Your task to perform on an android device: Search for sushi restaurants on Maps Image 0: 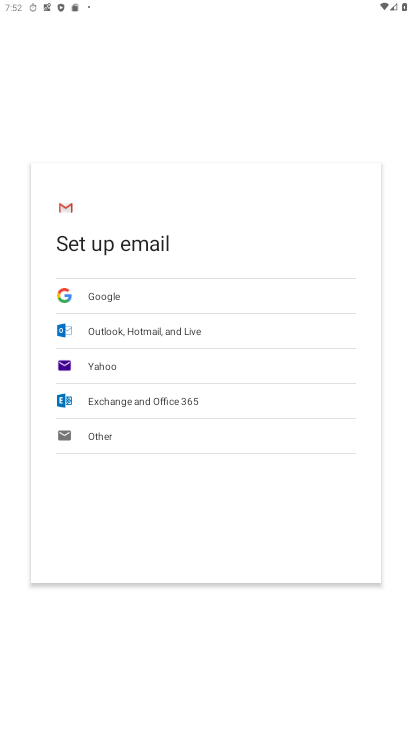
Step 0: press home button
Your task to perform on an android device: Search for sushi restaurants on Maps Image 1: 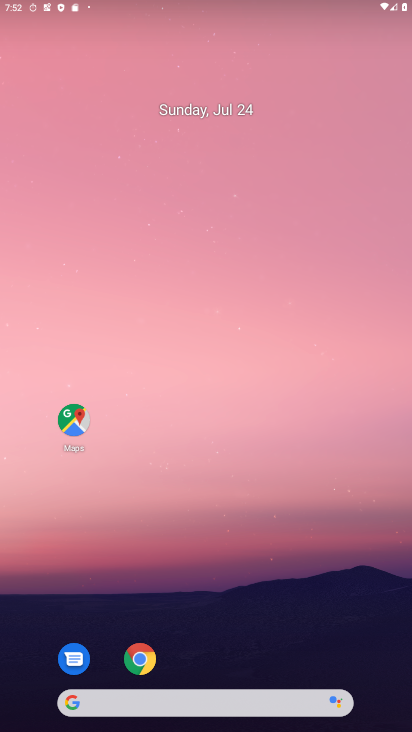
Step 1: drag from (353, 609) to (166, 3)
Your task to perform on an android device: Search for sushi restaurants on Maps Image 2: 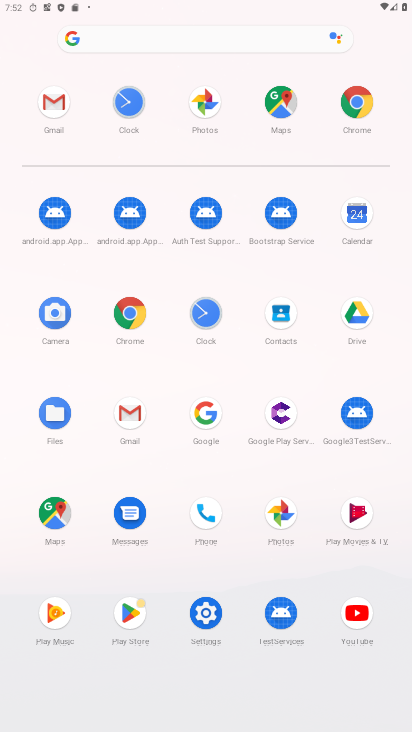
Step 2: click (287, 100)
Your task to perform on an android device: Search for sushi restaurants on Maps Image 3: 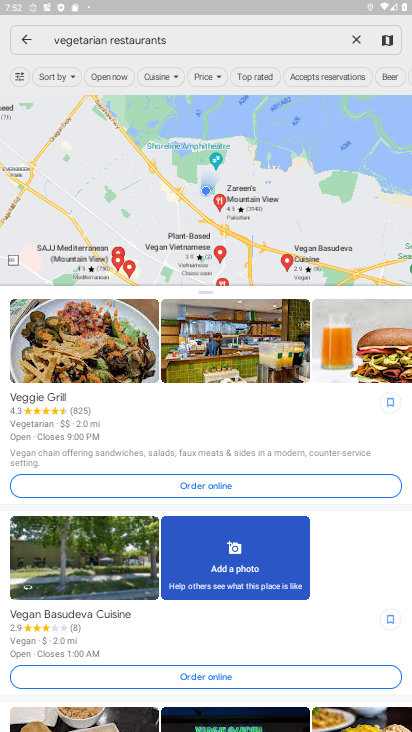
Step 3: click (356, 42)
Your task to perform on an android device: Search for sushi restaurants on Maps Image 4: 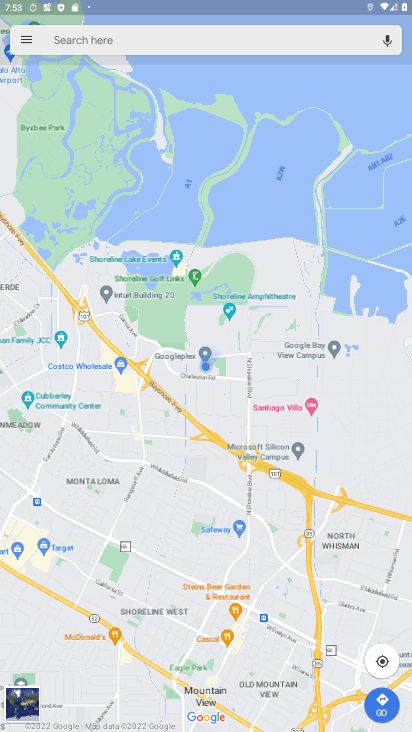
Step 4: type "sushi restaurants"
Your task to perform on an android device: Search for sushi restaurants on Maps Image 5: 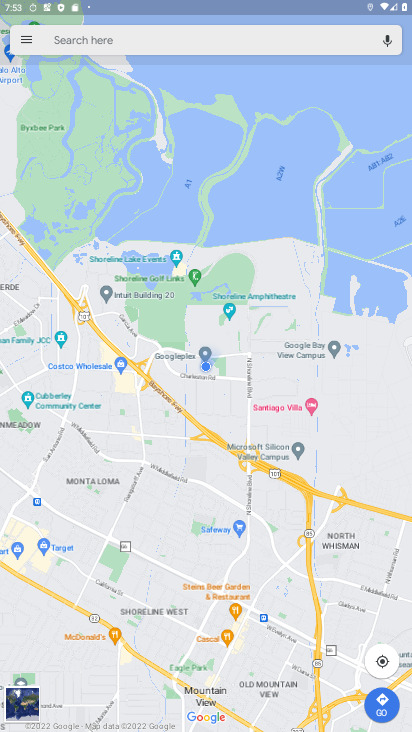
Step 5: click (322, 38)
Your task to perform on an android device: Search for sushi restaurants on Maps Image 6: 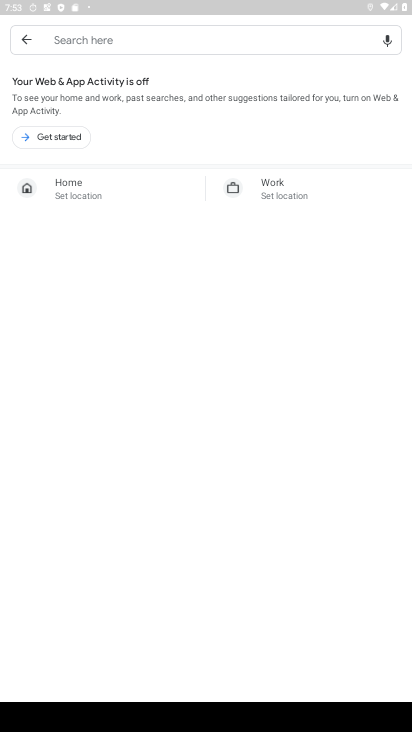
Step 6: type "sushi restaurants"
Your task to perform on an android device: Search for sushi restaurants on Maps Image 7: 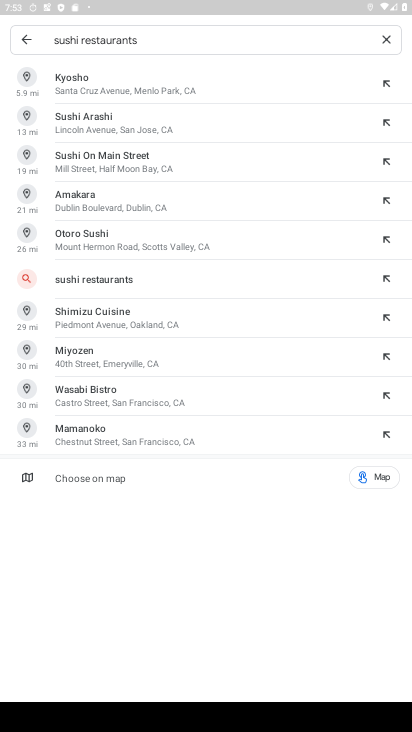
Step 7: press enter
Your task to perform on an android device: Search for sushi restaurants on Maps Image 8: 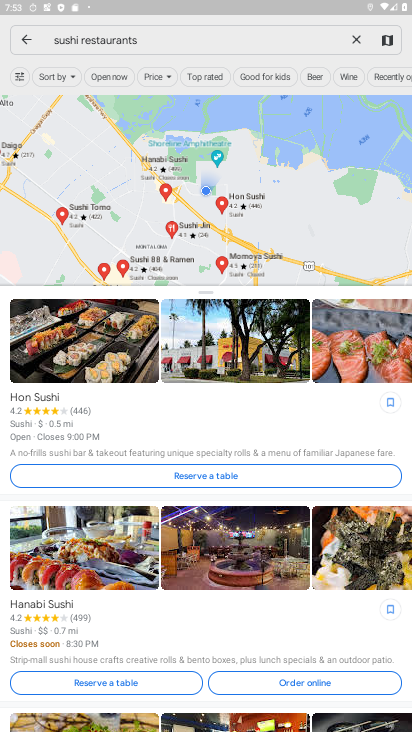
Step 8: task complete